Your task to perform on an android device: turn on data saver in the chrome app Image 0: 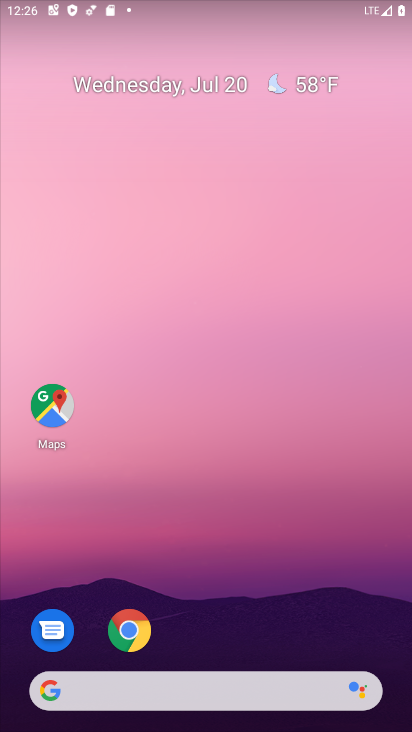
Step 0: drag from (161, 558) to (185, 277)
Your task to perform on an android device: turn on data saver in the chrome app Image 1: 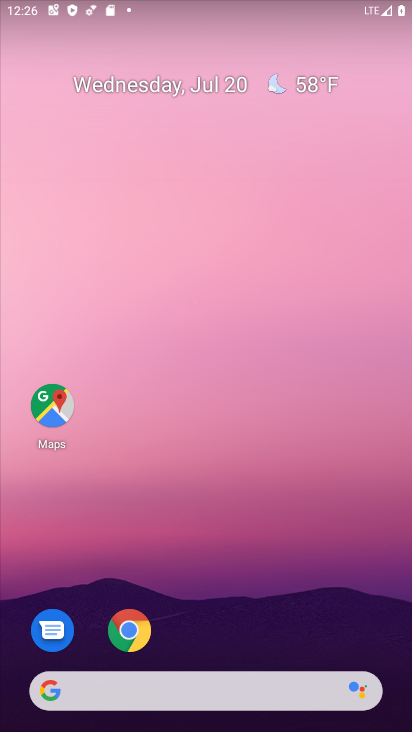
Step 1: click (123, 611)
Your task to perform on an android device: turn on data saver in the chrome app Image 2: 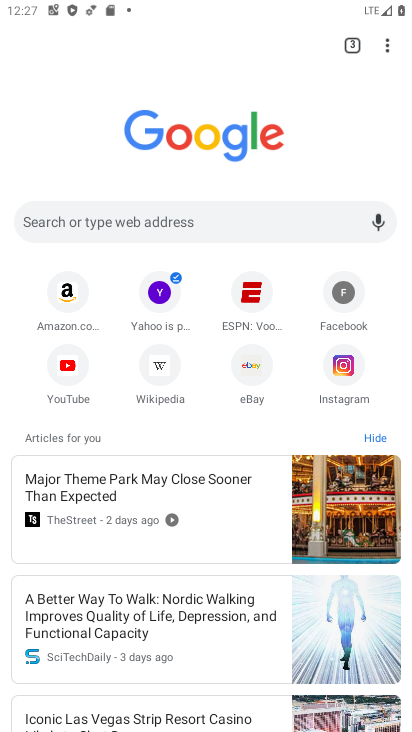
Step 2: click (394, 48)
Your task to perform on an android device: turn on data saver in the chrome app Image 3: 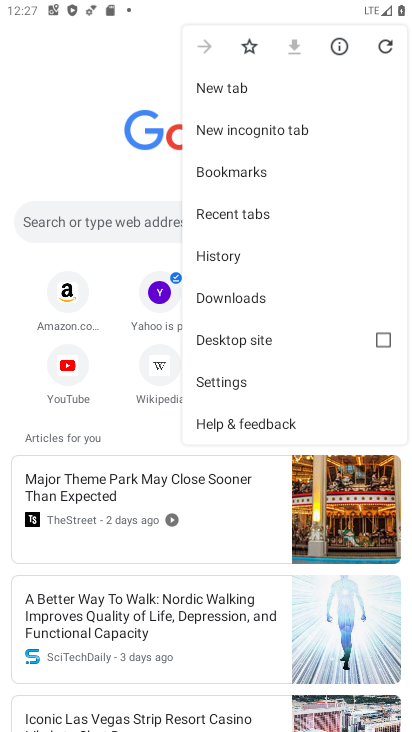
Step 3: click (220, 383)
Your task to perform on an android device: turn on data saver in the chrome app Image 4: 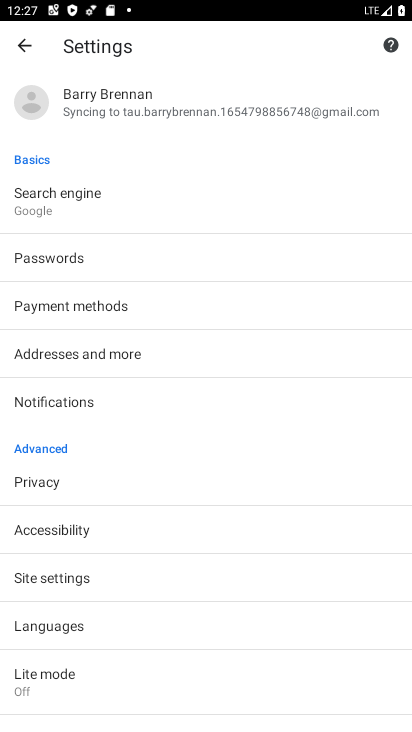
Step 4: click (84, 683)
Your task to perform on an android device: turn on data saver in the chrome app Image 5: 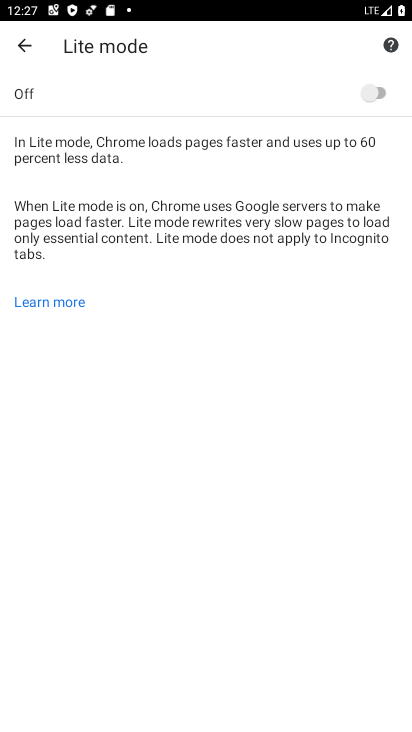
Step 5: click (382, 93)
Your task to perform on an android device: turn on data saver in the chrome app Image 6: 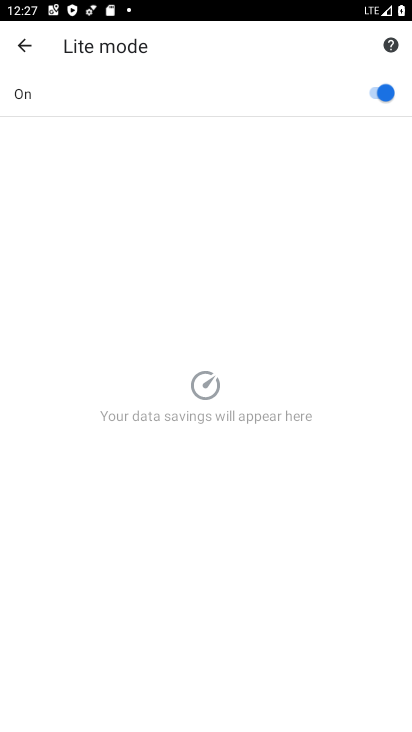
Step 6: task complete